Your task to perform on an android device: move an email to a new category in the gmail app Image 0: 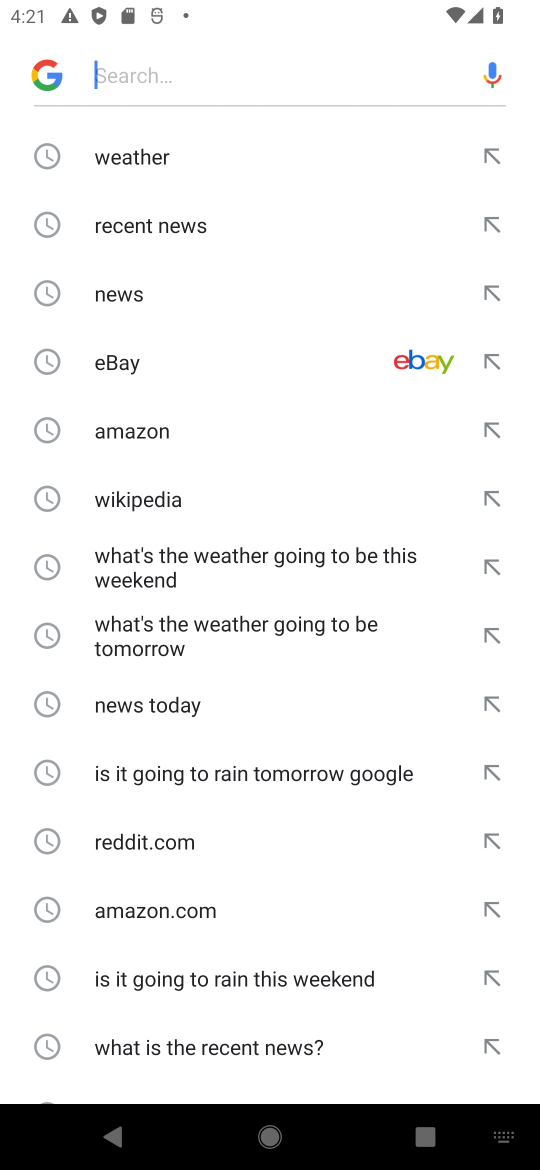
Step 0: press home button
Your task to perform on an android device: move an email to a new category in the gmail app Image 1: 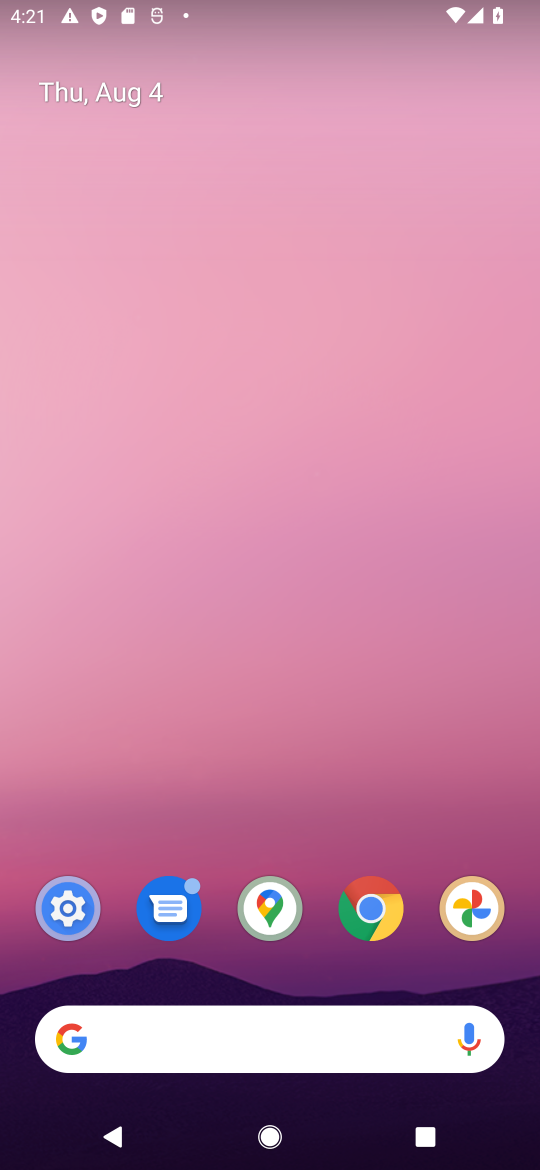
Step 1: drag from (336, 990) to (301, 282)
Your task to perform on an android device: move an email to a new category in the gmail app Image 2: 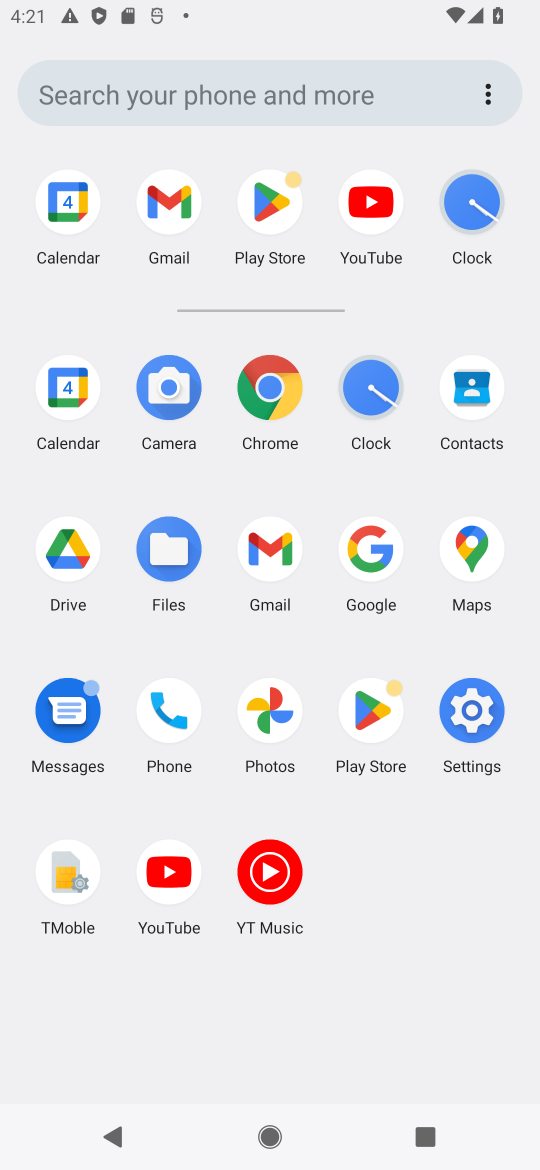
Step 2: click (166, 208)
Your task to perform on an android device: move an email to a new category in the gmail app Image 3: 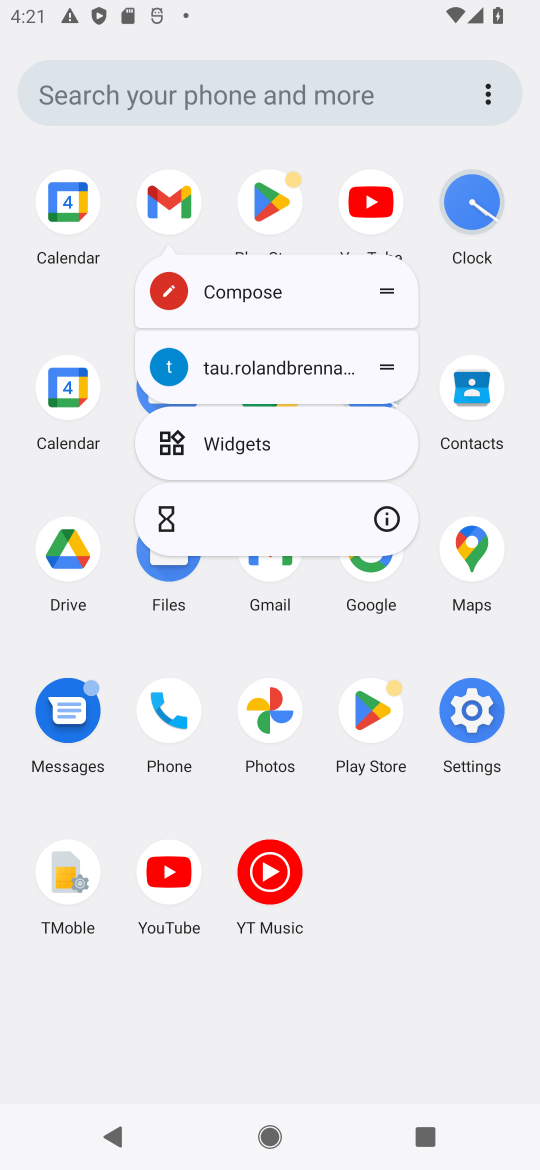
Step 3: click (166, 208)
Your task to perform on an android device: move an email to a new category in the gmail app Image 4: 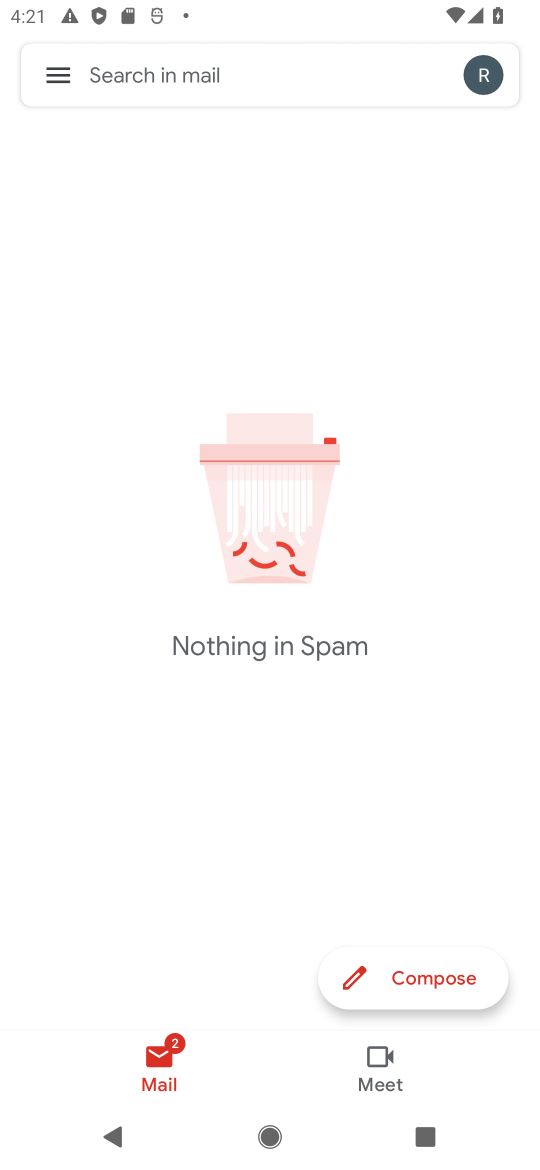
Step 4: click (67, 73)
Your task to perform on an android device: move an email to a new category in the gmail app Image 5: 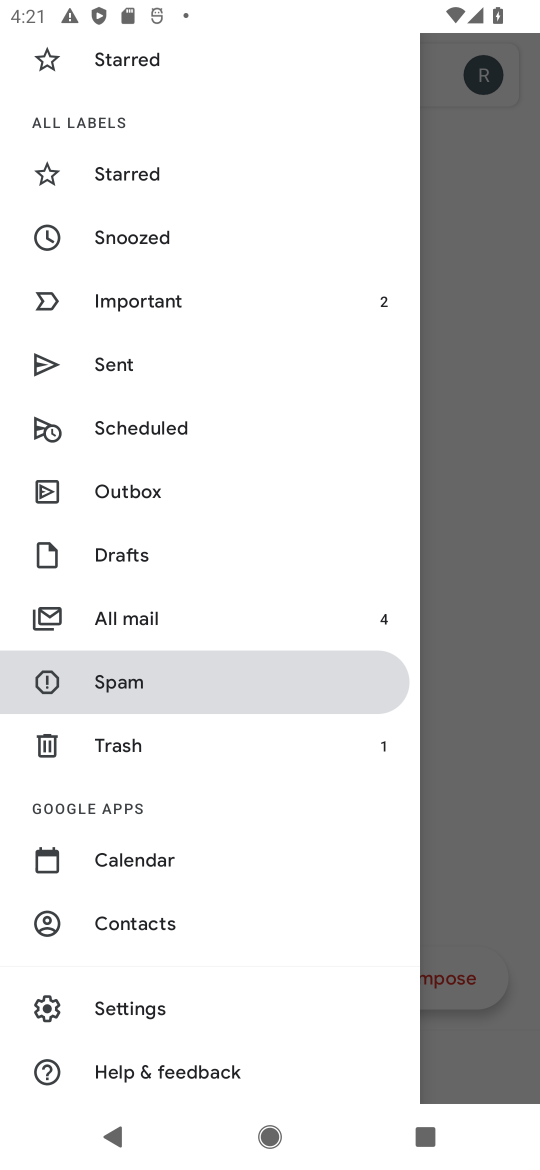
Step 5: click (196, 616)
Your task to perform on an android device: move an email to a new category in the gmail app Image 6: 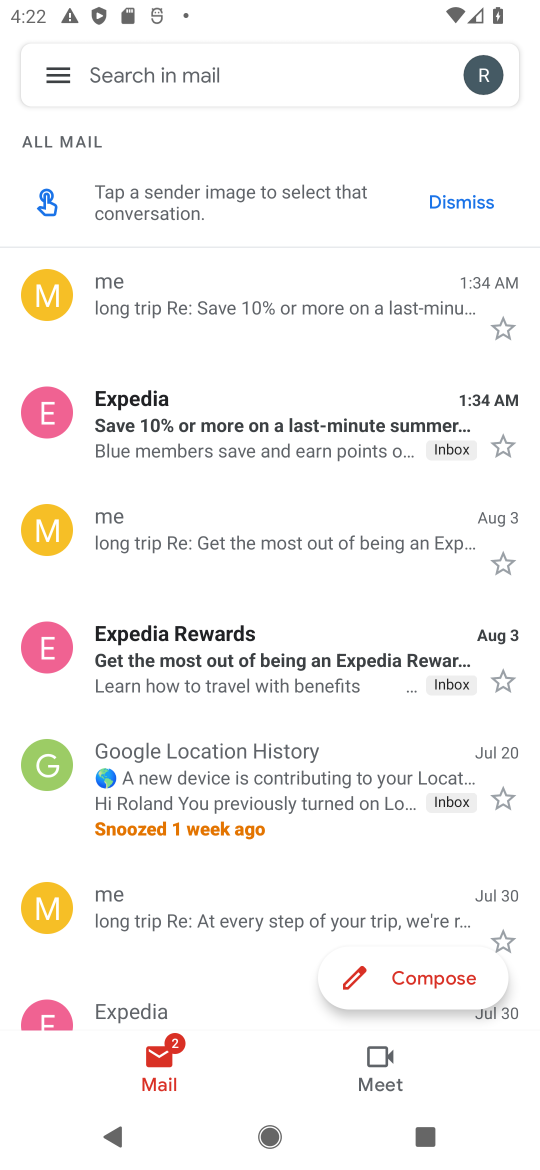
Step 6: click (500, 324)
Your task to perform on an android device: move an email to a new category in the gmail app Image 7: 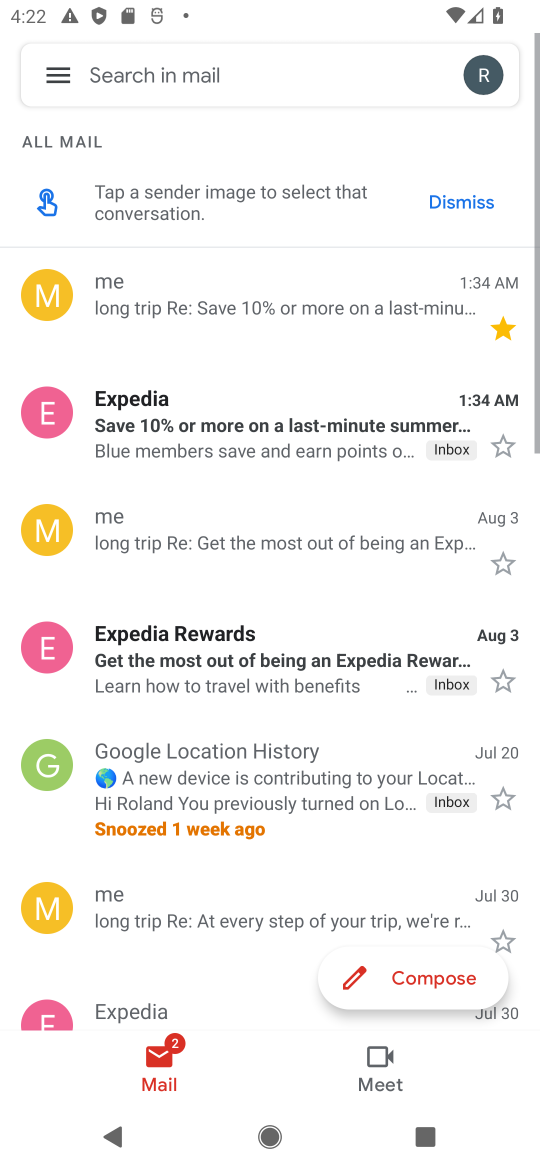
Step 7: task complete